Your task to perform on an android device: allow notifications from all sites in the chrome app Image 0: 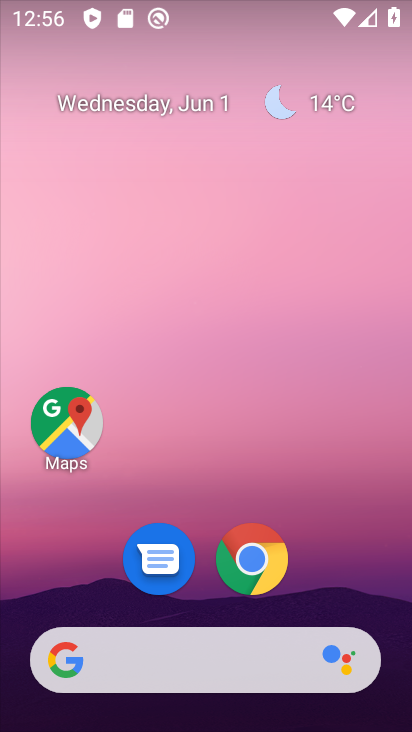
Step 0: drag from (395, 696) to (362, 184)
Your task to perform on an android device: allow notifications from all sites in the chrome app Image 1: 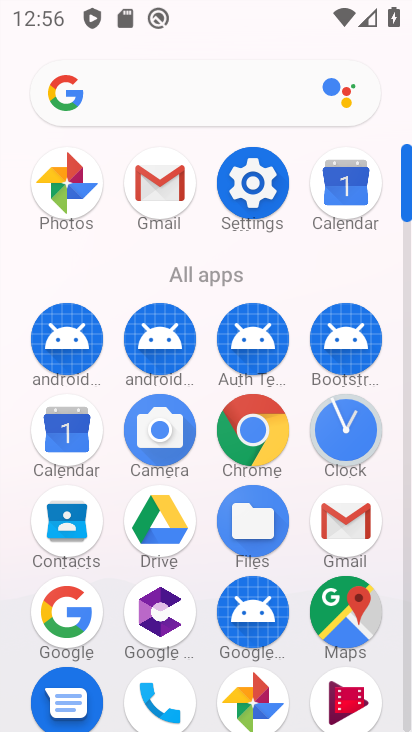
Step 1: click (246, 426)
Your task to perform on an android device: allow notifications from all sites in the chrome app Image 2: 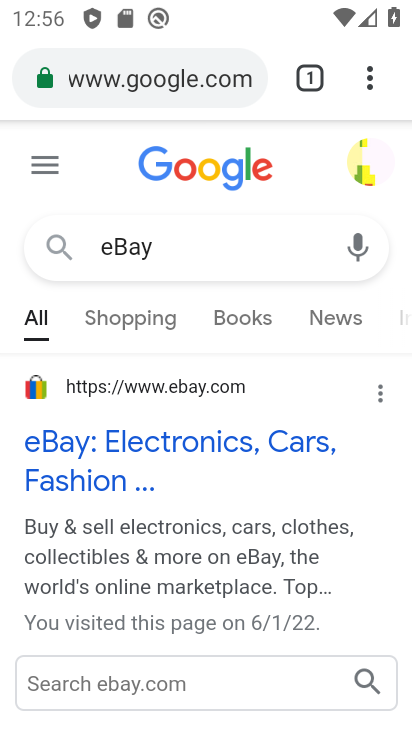
Step 2: click (375, 80)
Your task to perform on an android device: allow notifications from all sites in the chrome app Image 3: 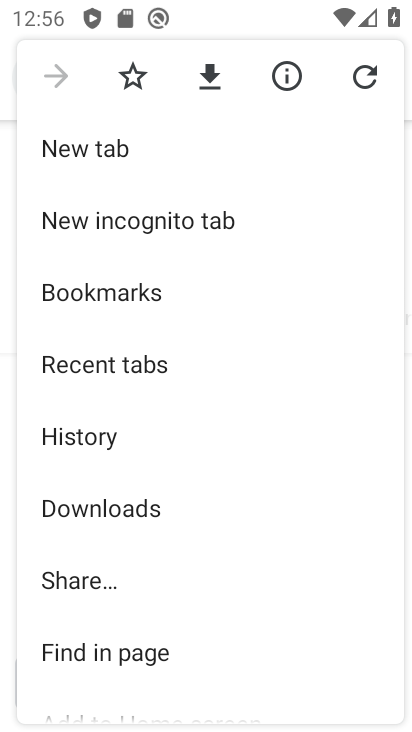
Step 3: drag from (209, 657) to (223, 369)
Your task to perform on an android device: allow notifications from all sites in the chrome app Image 4: 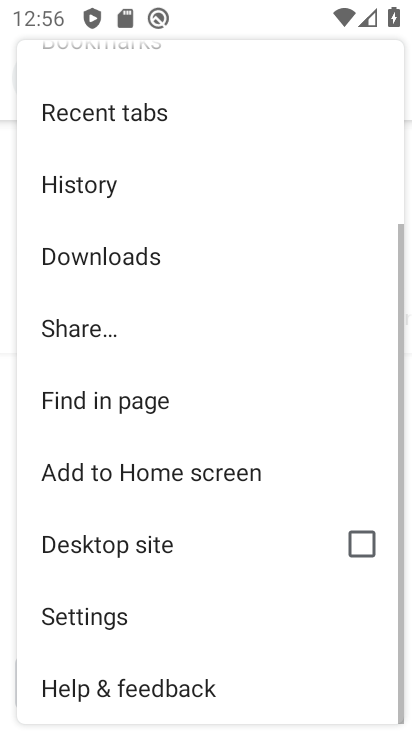
Step 4: click (95, 622)
Your task to perform on an android device: allow notifications from all sites in the chrome app Image 5: 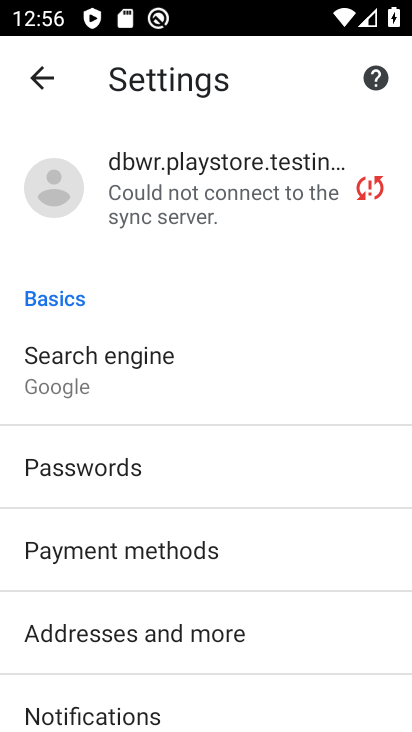
Step 5: drag from (289, 690) to (280, 249)
Your task to perform on an android device: allow notifications from all sites in the chrome app Image 6: 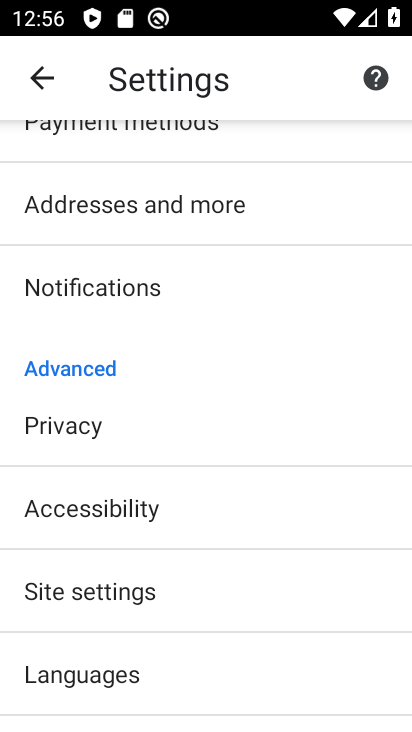
Step 6: click (91, 592)
Your task to perform on an android device: allow notifications from all sites in the chrome app Image 7: 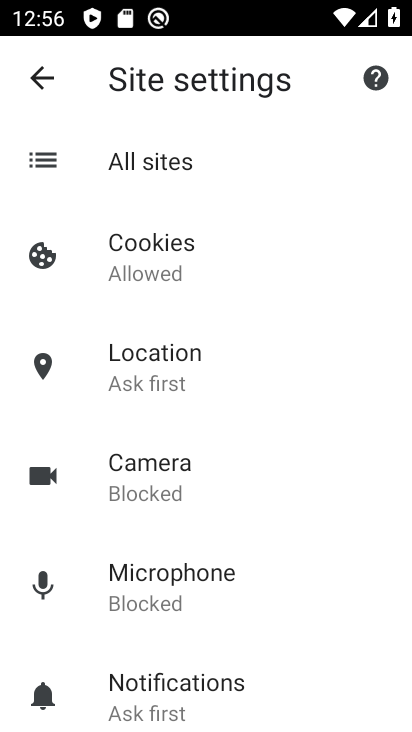
Step 7: click (152, 687)
Your task to perform on an android device: allow notifications from all sites in the chrome app Image 8: 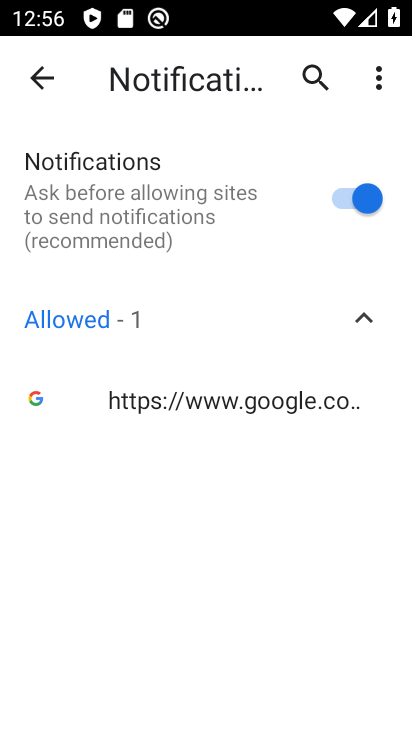
Step 8: task complete